Your task to perform on an android device: delete browsing data in the chrome app Image 0: 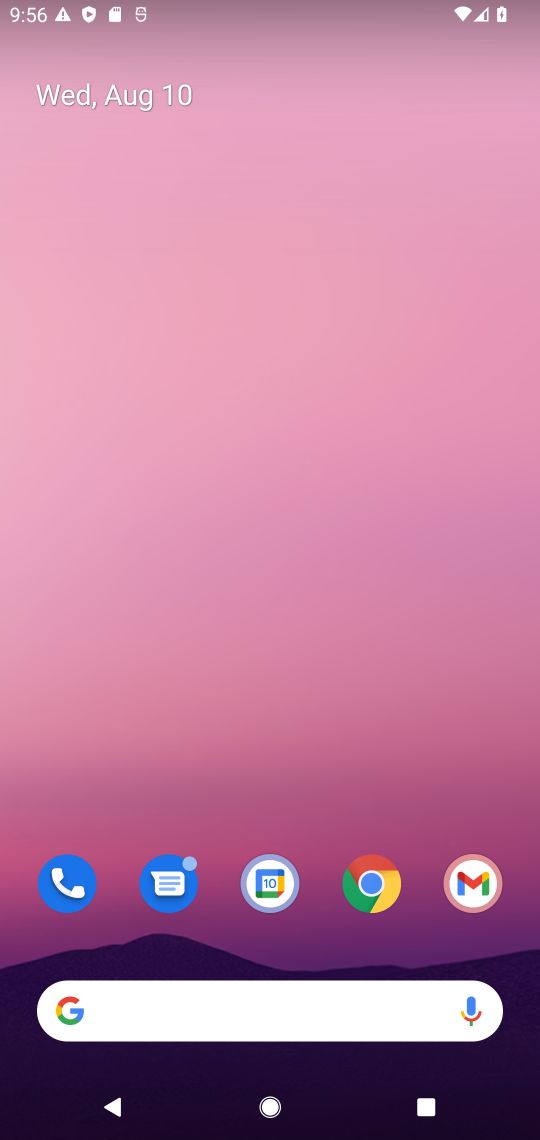
Step 0: click (379, 915)
Your task to perform on an android device: delete browsing data in the chrome app Image 1: 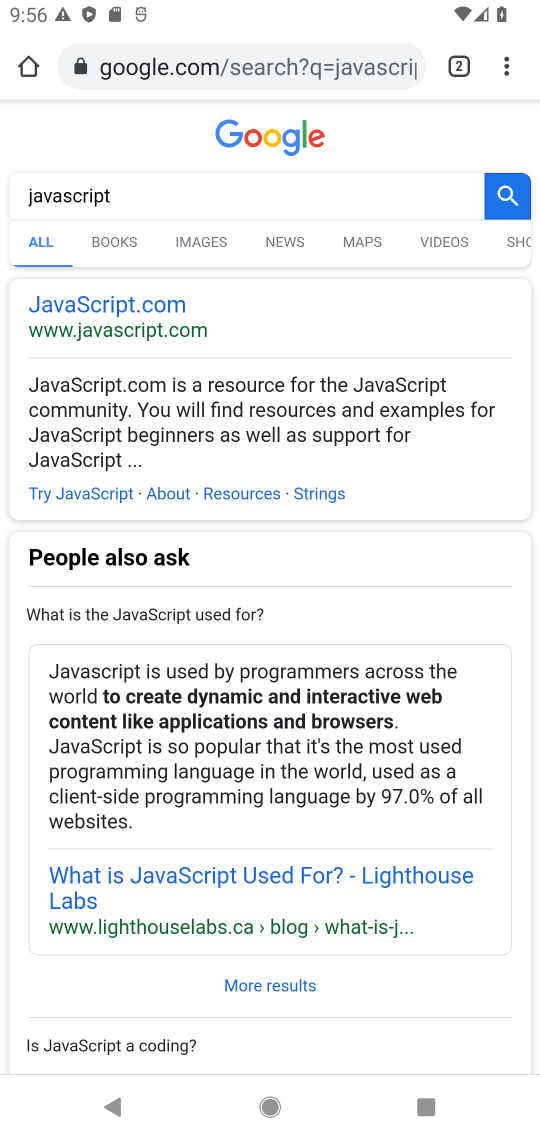
Step 1: drag from (507, 57) to (349, 879)
Your task to perform on an android device: delete browsing data in the chrome app Image 2: 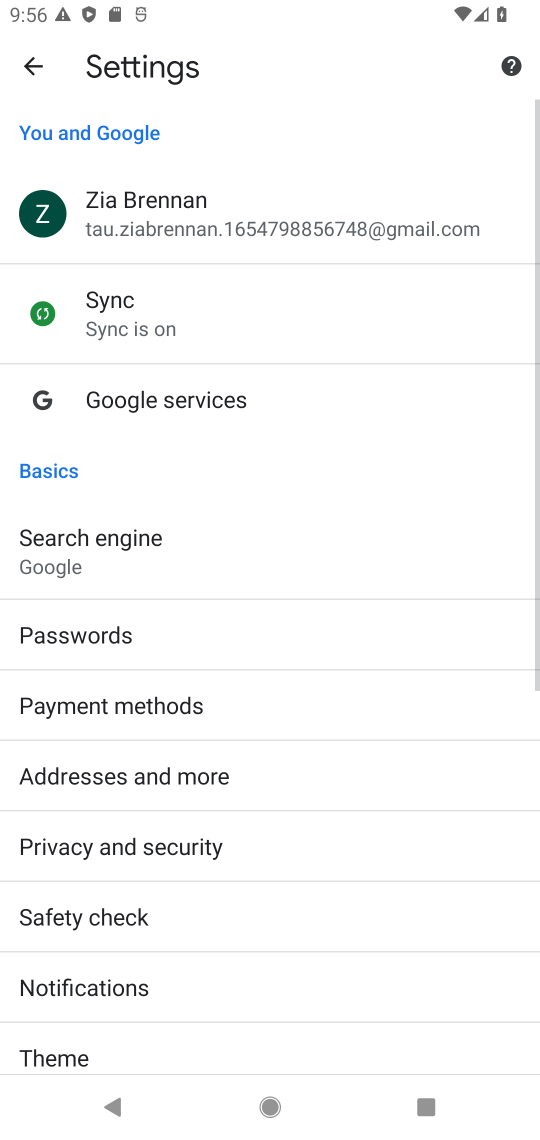
Step 2: drag from (290, 1075) to (289, 119)
Your task to perform on an android device: delete browsing data in the chrome app Image 3: 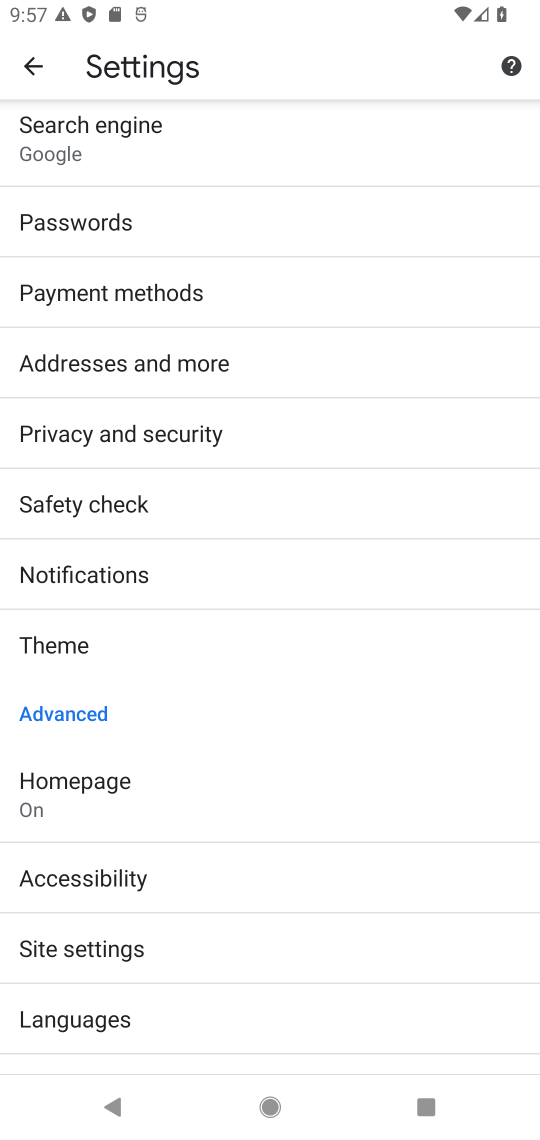
Step 3: click (165, 443)
Your task to perform on an android device: delete browsing data in the chrome app Image 4: 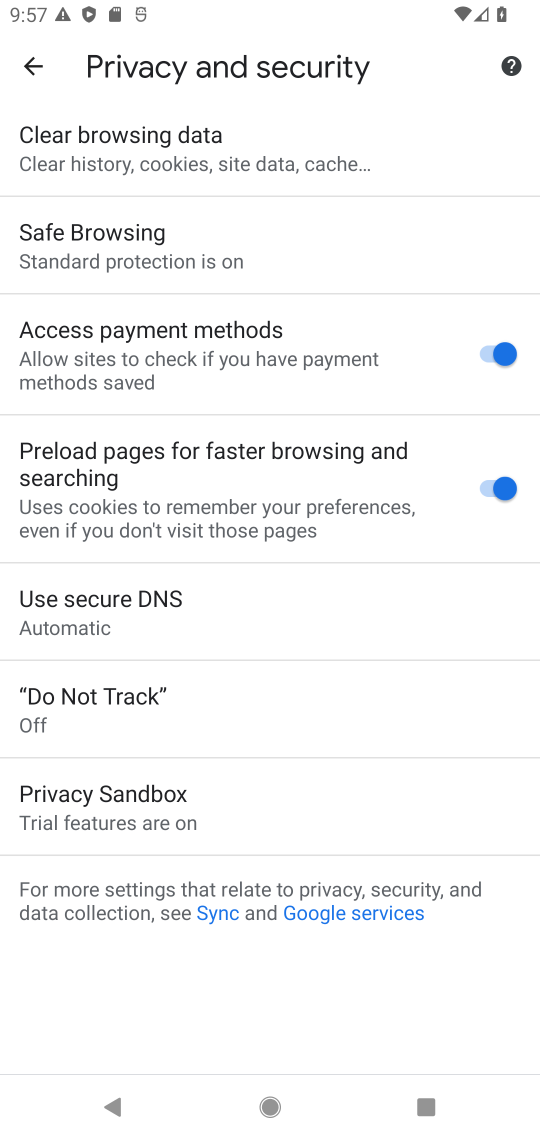
Step 4: click (170, 161)
Your task to perform on an android device: delete browsing data in the chrome app Image 5: 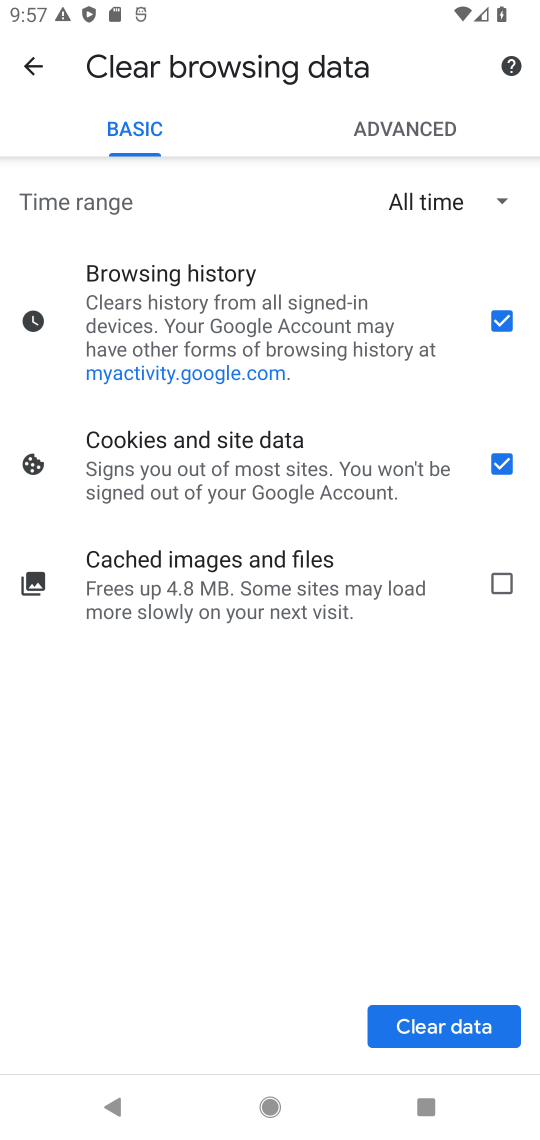
Step 5: click (400, 1043)
Your task to perform on an android device: delete browsing data in the chrome app Image 6: 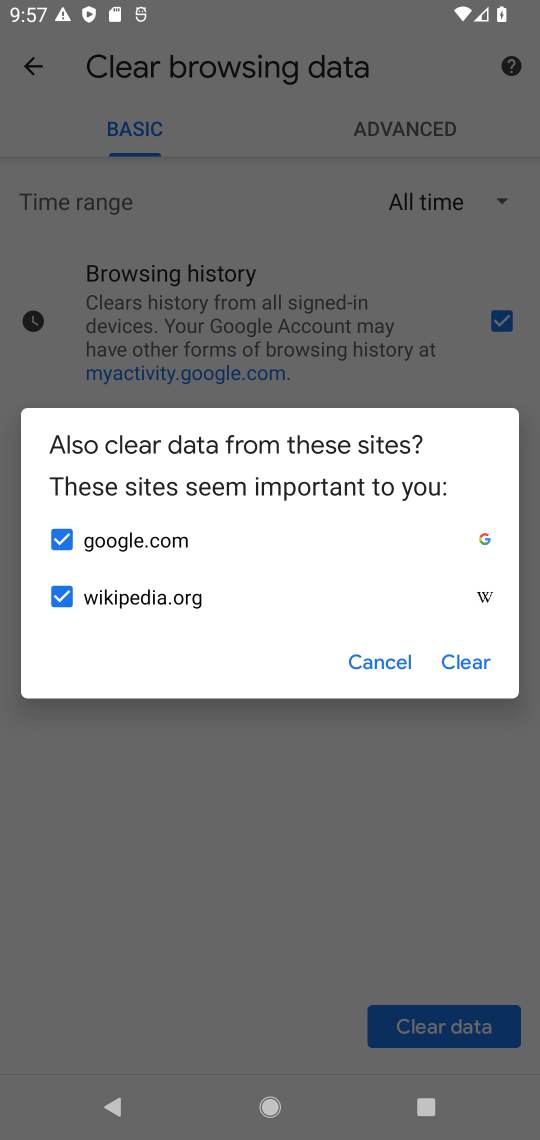
Step 6: click (457, 675)
Your task to perform on an android device: delete browsing data in the chrome app Image 7: 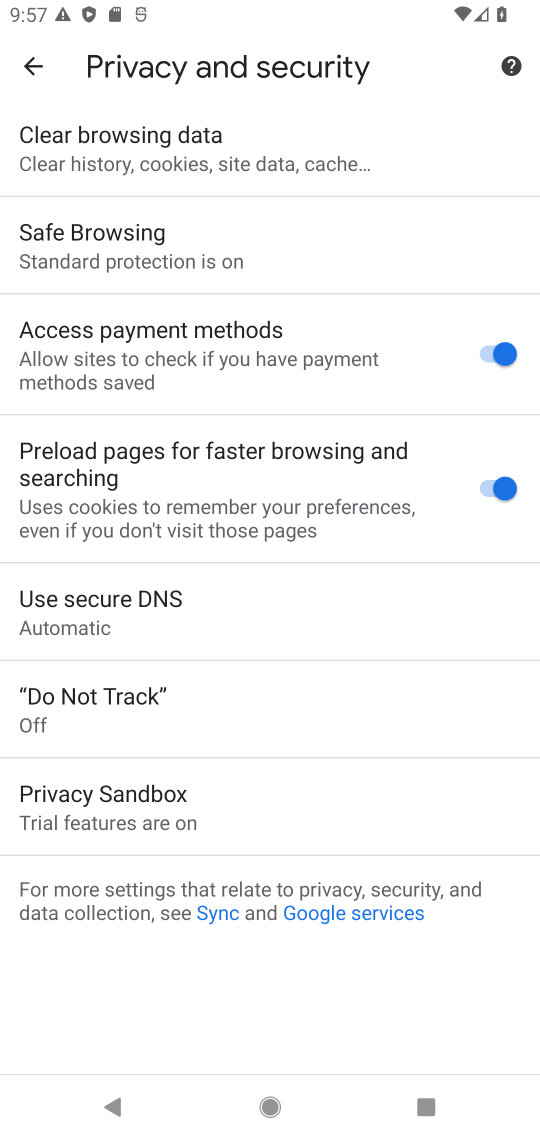
Step 7: task complete